Your task to perform on an android device: Open calendar and show me the second week of next month Image 0: 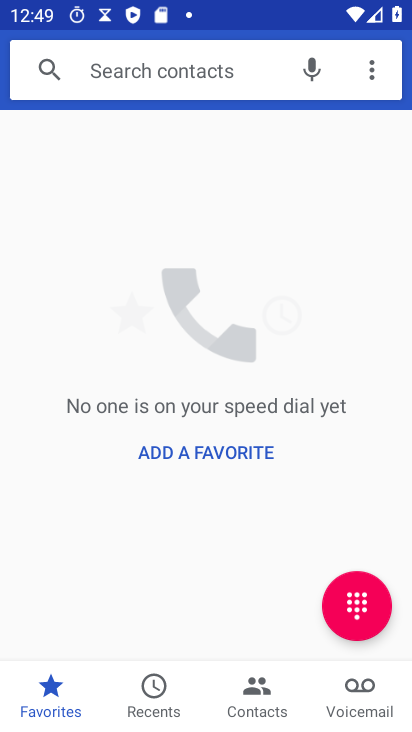
Step 0: press back button
Your task to perform on an android device: Open calendar and show me the second week of next month Image 1: 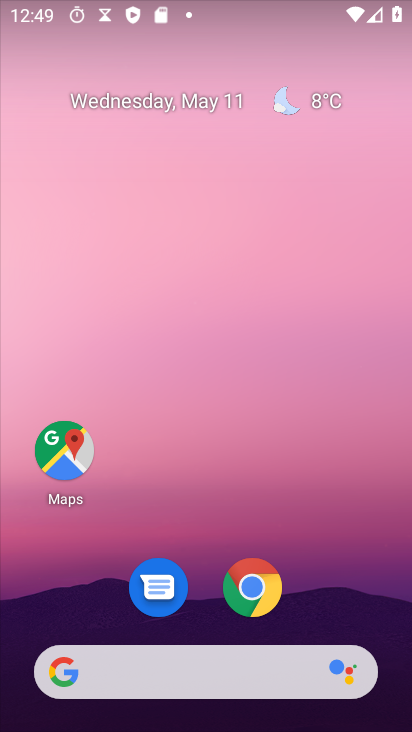
Step 1: drag from (388, 650) to (160, 103)
Your task to perform on an android device: Open calendar and show me the second week of next month Image 2: 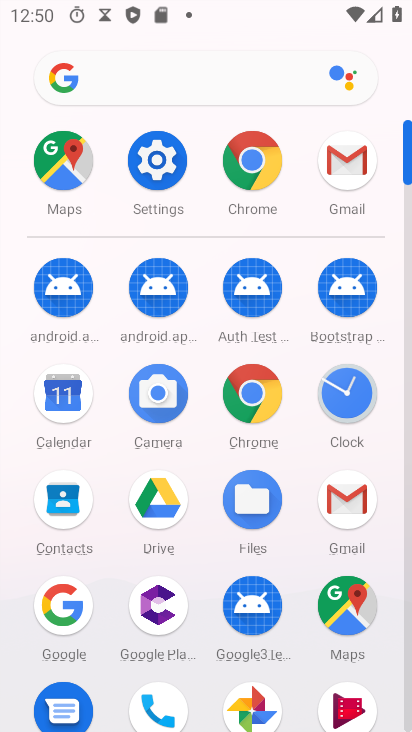
Step 2: click (59, 402)
Your task to perform on an android device: Open calendar and show me the second week of next month Image 3: 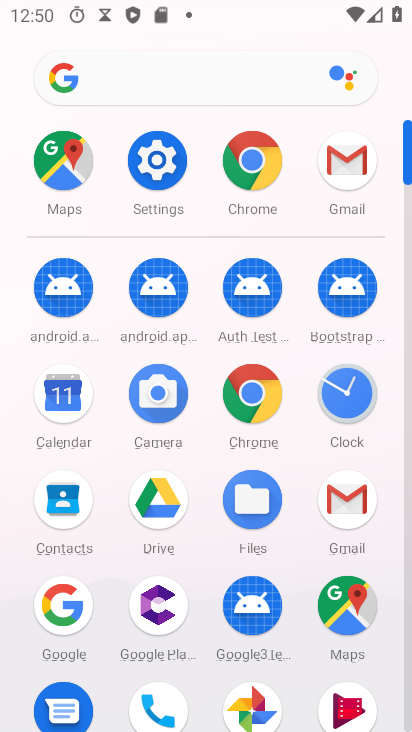
Step 3: click (60, 399)
Your task to perform on an android device: Open calendar and show me the second week of next month Image 4: 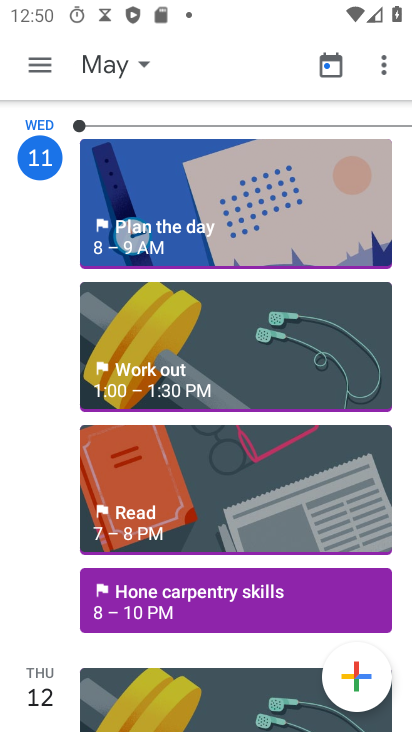
Step 4: click (140, 65)
Your task to perform on an android device: Open calendar and show me the second week of next month Image 5: 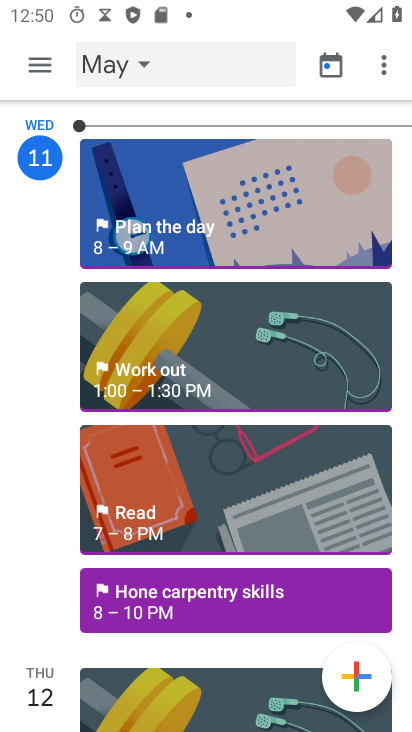
Step 5: click (140, 65)
Your task to perform on an android device: Open calendar and show me the second week of next month Image 6: 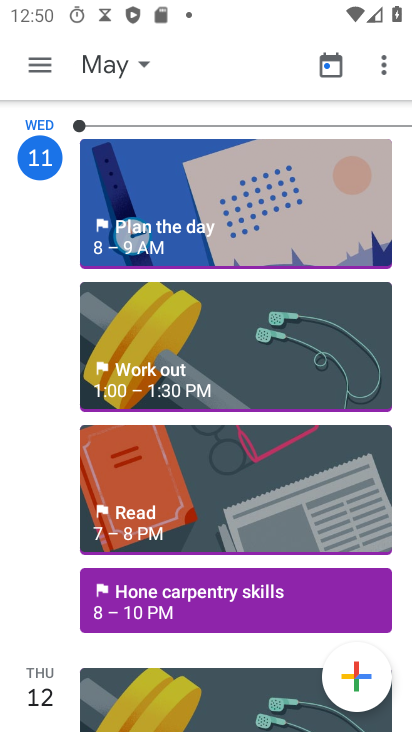
Step 6: click (140, 65)
Your task to perform on an android device: Open calendar and show me the second week of next month Image 7: 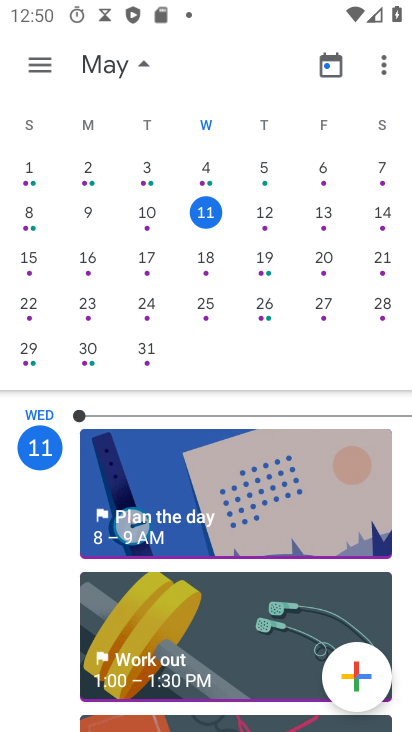
Step 7: drag from (268, 228) to (6, 294)
Your task to perform on an android device: Open calendar and show me the second week of next month Image 8: 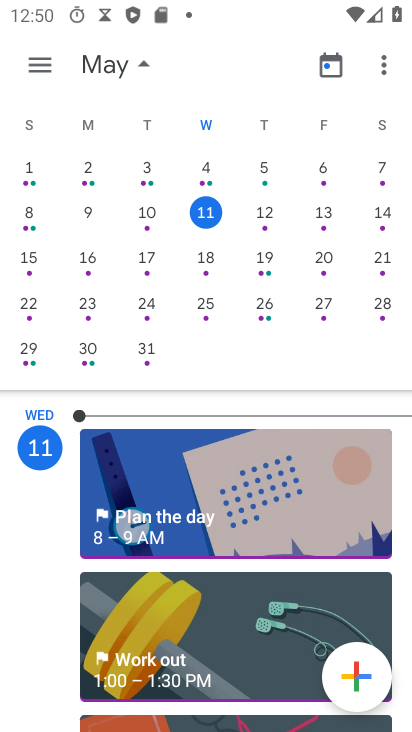
Step 8: drag from (296, 238) to (42, 208)
Your task to perform on an android device: Open calendar and show me the second week of next month Image 9: 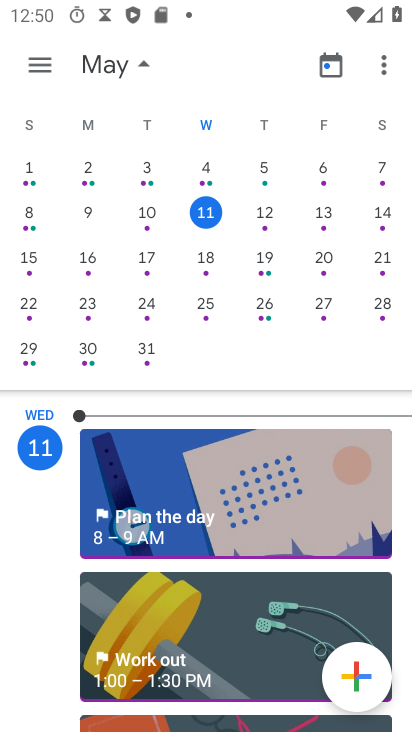
Step 9: drag from (118, 284) to (7, 419)
Your task to perform on an android device: Open calendar and show me the second week of next month Image 10: 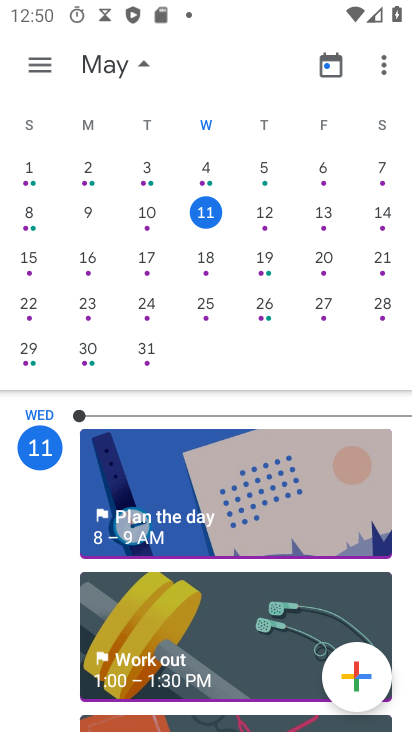
Step 10: drag from (260, 261) to (67, 251)
Your task to perform on an android device: Open calendar and show me the second week of next month Image 11: 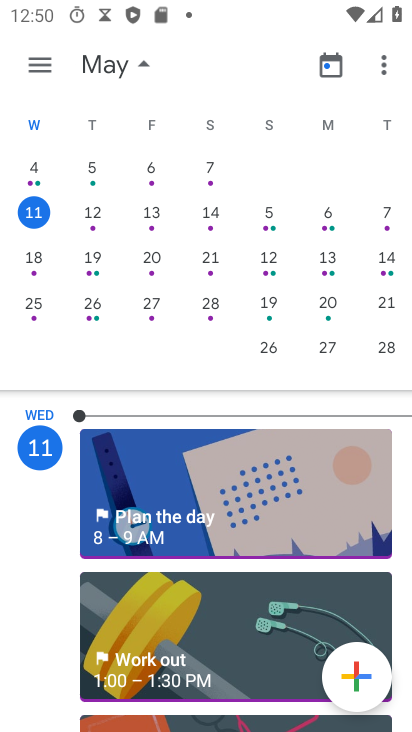
Step 11: drag from (54, 251) to (116, 301)
Your task to perform on an android device: Open calendar and show me the second week of next month Image 12: 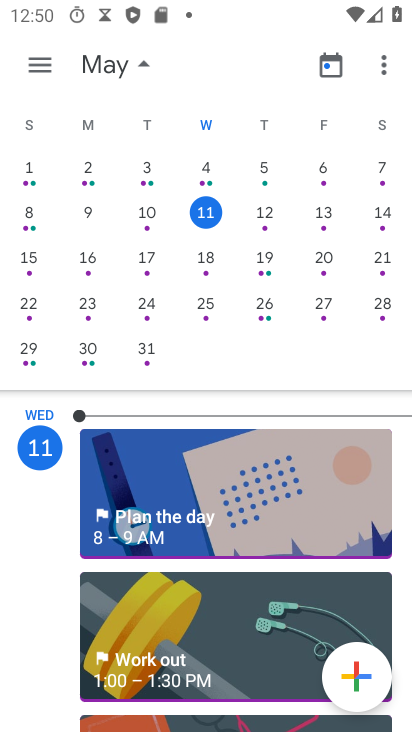
Step 12: drag from (372, 280) to (58, 205)
Your task to perform on an android device: Open calendar and show me the second week of next month Image 13: 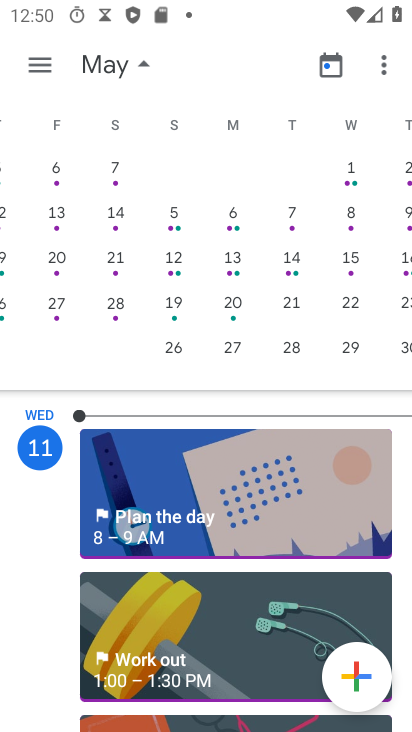
Step 13: drag from (246, 183) to (39, 215)
Your task to perform on an android device: Open calendar and show me the second week of next month Image 14: 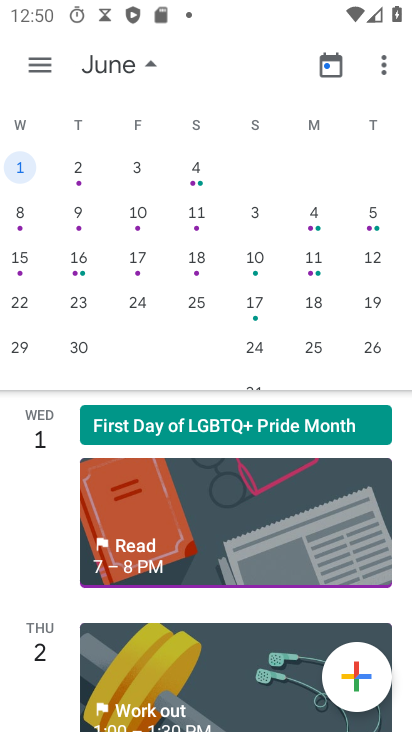
Step 14: drag from (221, 211) to (1, 278)
Your task to perform on an android device: Open calendar and show me the second week of next month Image 15: 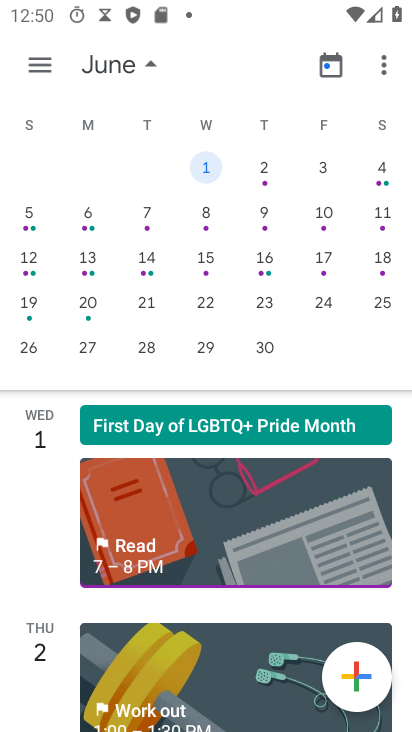
Step 15: click (201, 209)
Your task to perform on an android device: Open calendar and show me the second week of next month Image 16: 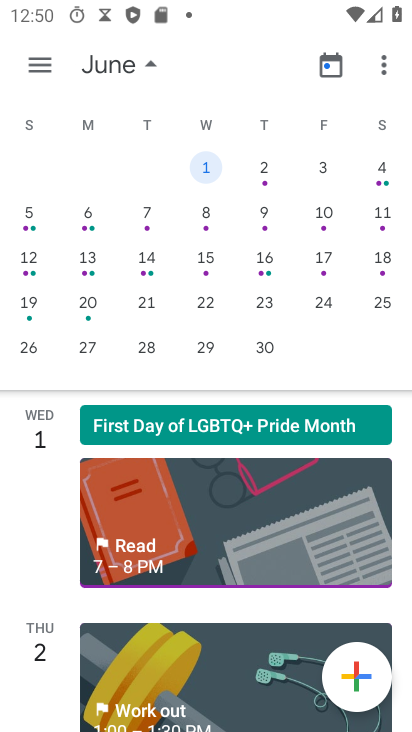
Step 16: click (203, 208)
Your task to perform on an android device: Open calendar and show me the second week of next month Image 17: 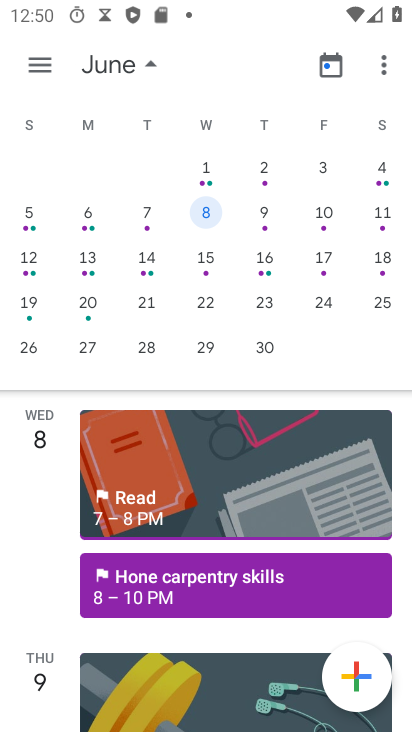
Step 17: task complete